Your task to perform on an android device: toggle priority inbox in the gmail app Image 0: 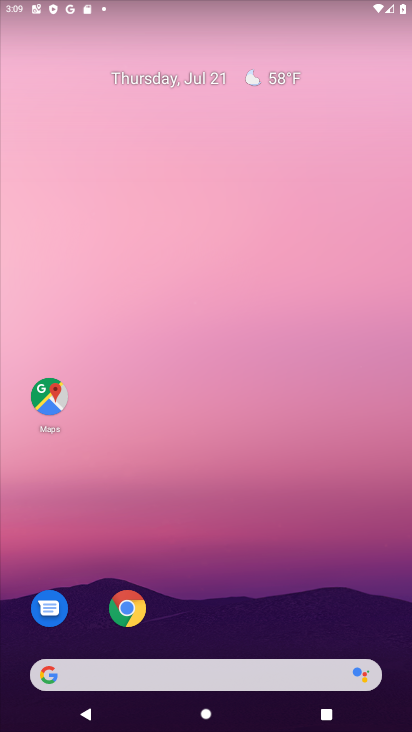
Step 0: press home button
Your task to perform on an android device: toggle priority inbox in the gmail app Image 1: 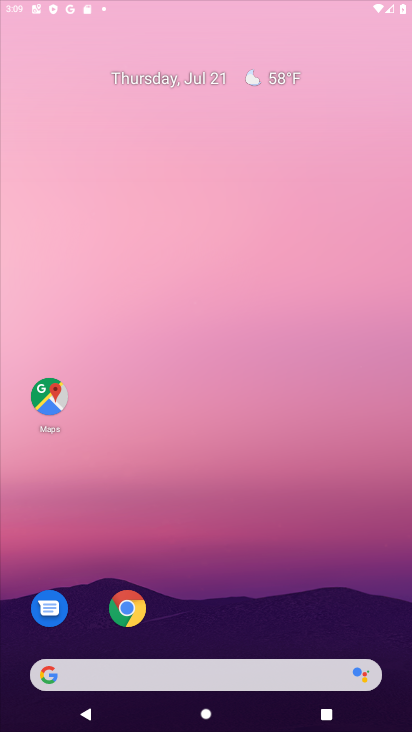
Step 1: drag from (216, 629) to (280, 39)
Your task to perform on an android device: toggle priority inbox in the gmail app Image 2: 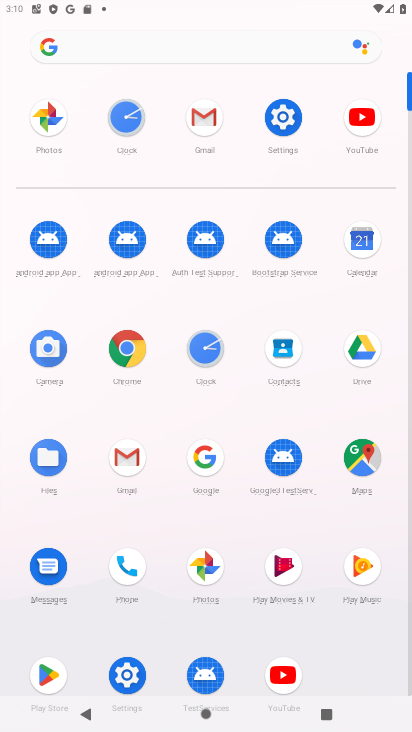
Step 2: click (120, 452)
Your task to perform on an android device: toggle priority inbox in the gmail app Image 3: 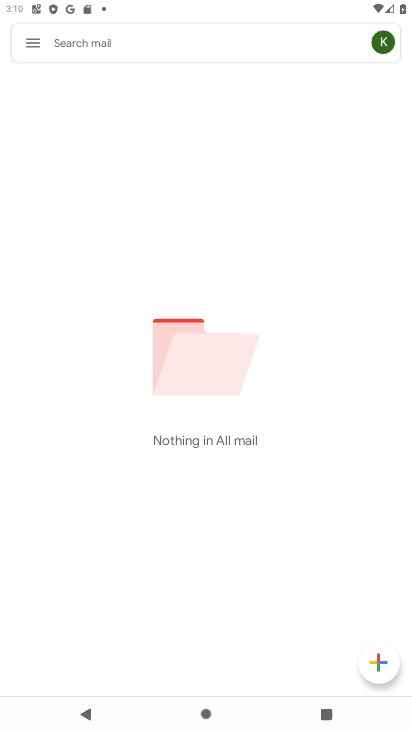
Step 3: click (27, 42)
Your task to perform on an android device: toggle priority inbox in the gmail app Image 4: 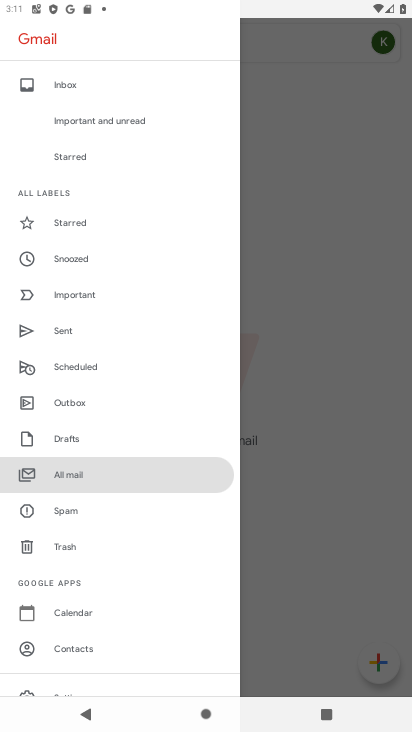
Step 4: drag from (88, 645) to (114, 158)
Your task to perform on an android device: toggle priority inbox in the gmail app Image 5: 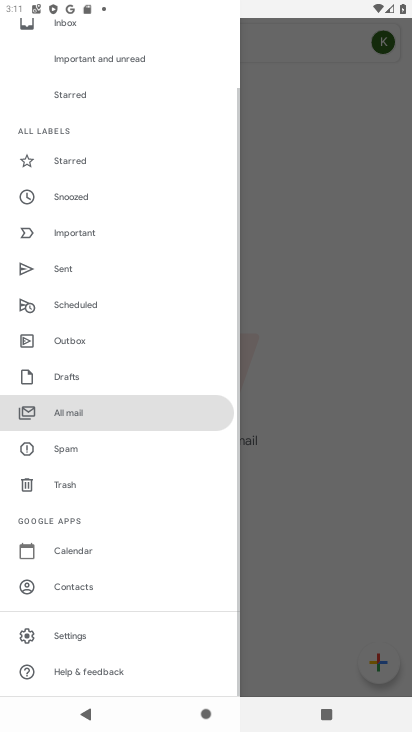
Step 5: click (89, 628)
Your task to perform on an android device: toggle priority inbox in the gmail app Image 6: 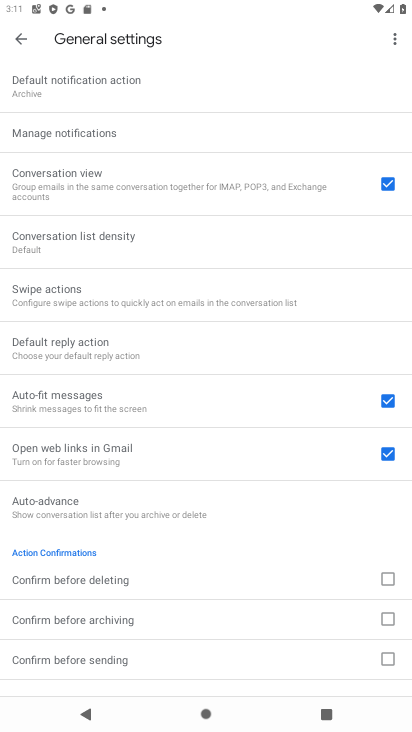
Step 6: click (20, 37)
Your task to perform on an android device: toggle priority inbox in the gmail app Image 7: 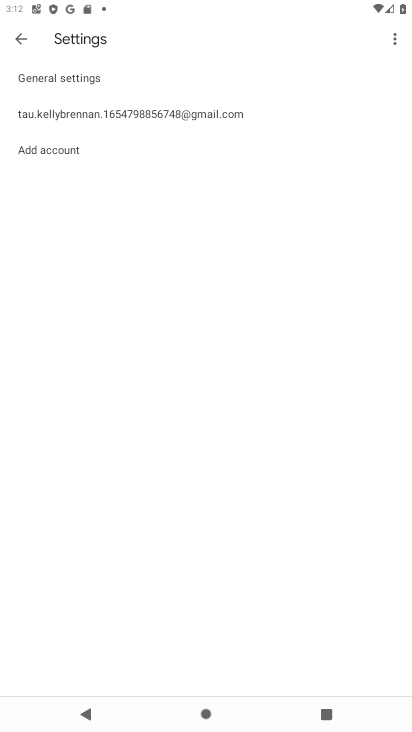
Step 7: click (113, 118)
Your task to perform on an android device: toggle priority inbox in the gmail app Image 8: 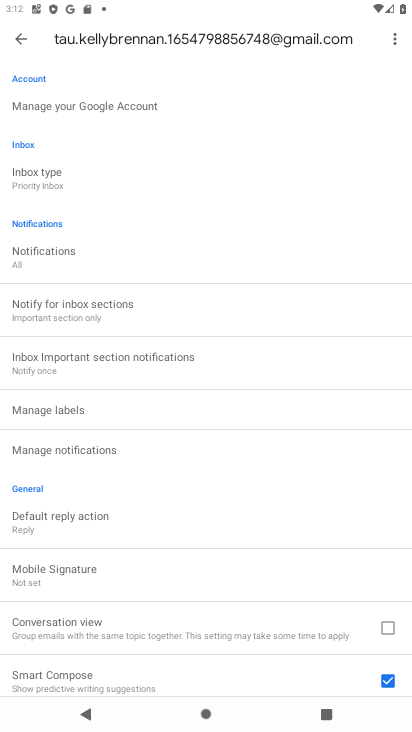
Step 8: click (52, 171)
Your task to perform on an android device: toggle priority inbox in the gmail app Image 9: 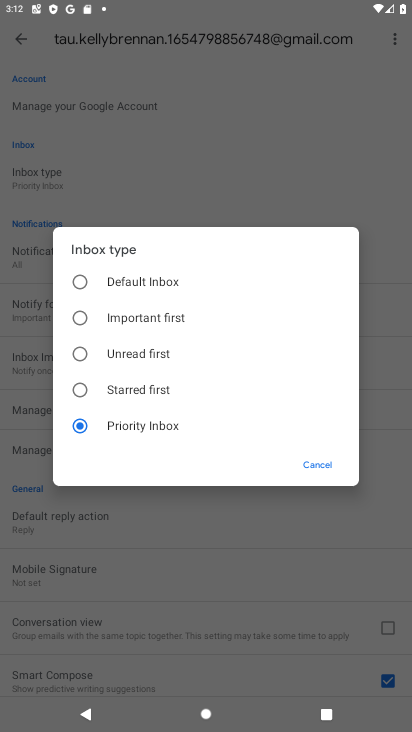
Step 9: click (116, 418)
Your task to perform on an android device: toggle priority inbox in the gmail app Image 10: 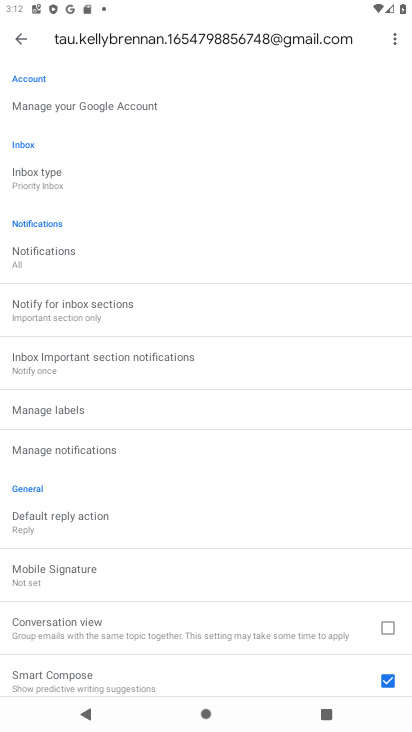
Step 10: task complete